Your task to perform on an android device: Open the phone app and click the voicemail tab. Image 0: 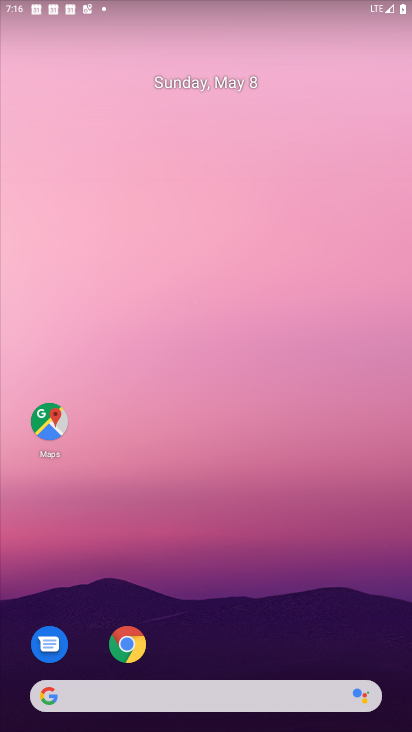
Step 0: drag from (307, 280) to (290, 41)
Your task to perform on an android device: Open the phone app and click the voicemail tab. Image 1: 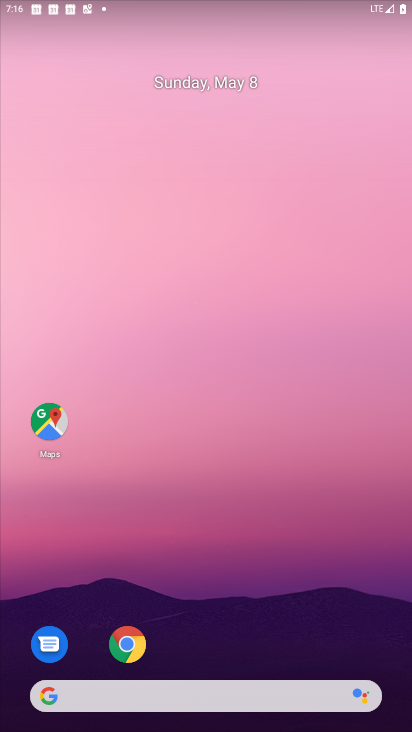
Step 1: drag from (338, 651) to (233, 188)
Your task to perform on an android device: Open the phone app and click the voicemail tab. Image 2: 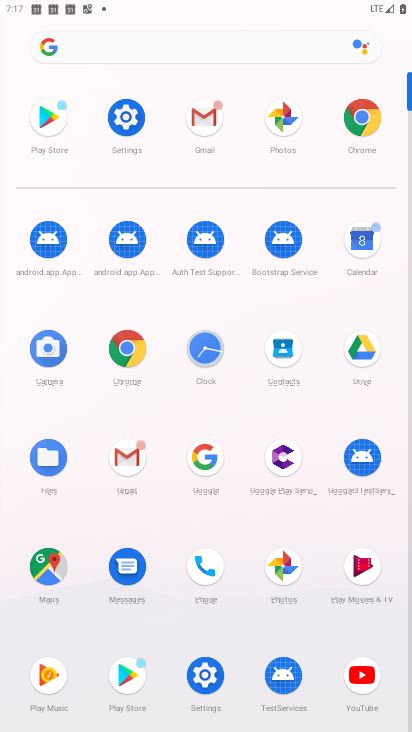
Step 2: click (204, 557)
Your task to perform on an android device: Open the phone app and click the voicemail tab. Image 3: 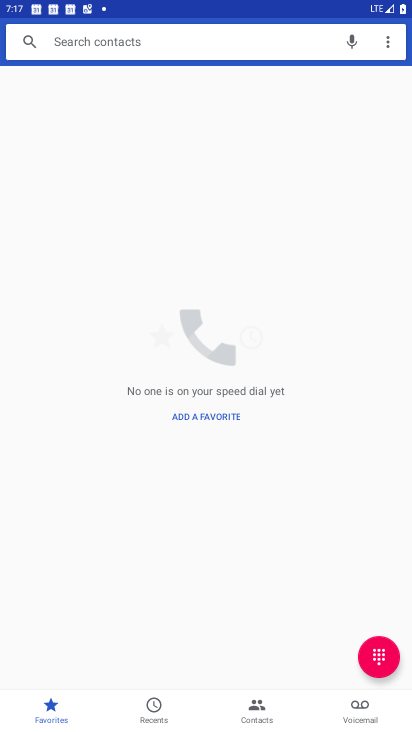
Step 3: click (360, 708)
Your task to perform on an android device: Open the phone app and click the voicemail tab. Image 4: 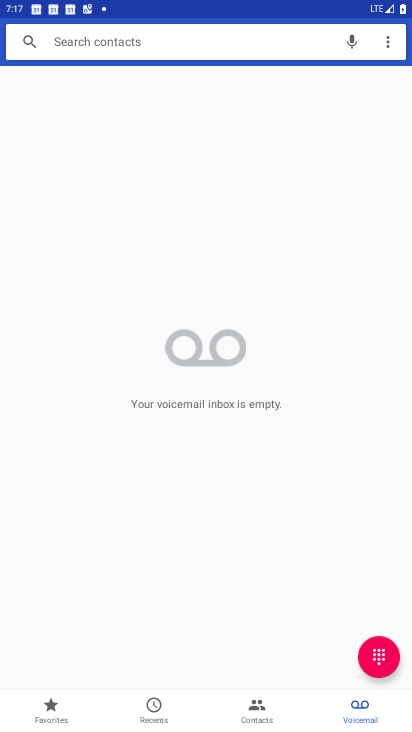
Step 4: task complete